Your task to perform on an android device: toggle data saver in the chrome app Image 0: 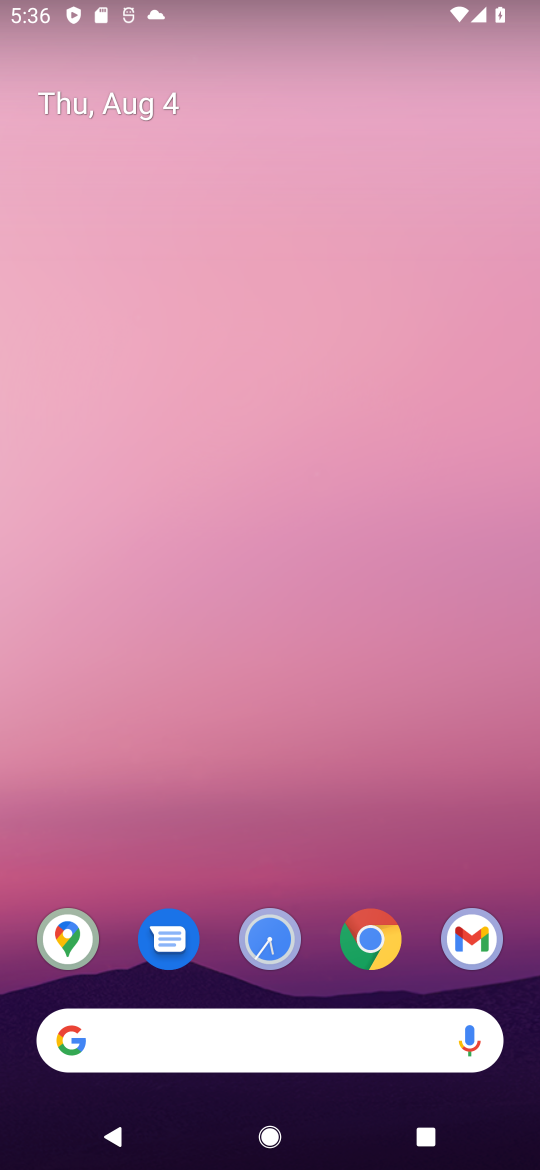
Step 0: click (366, 953)
Your task to perform on an android device: toggle data saver in the chrome app Image 1: 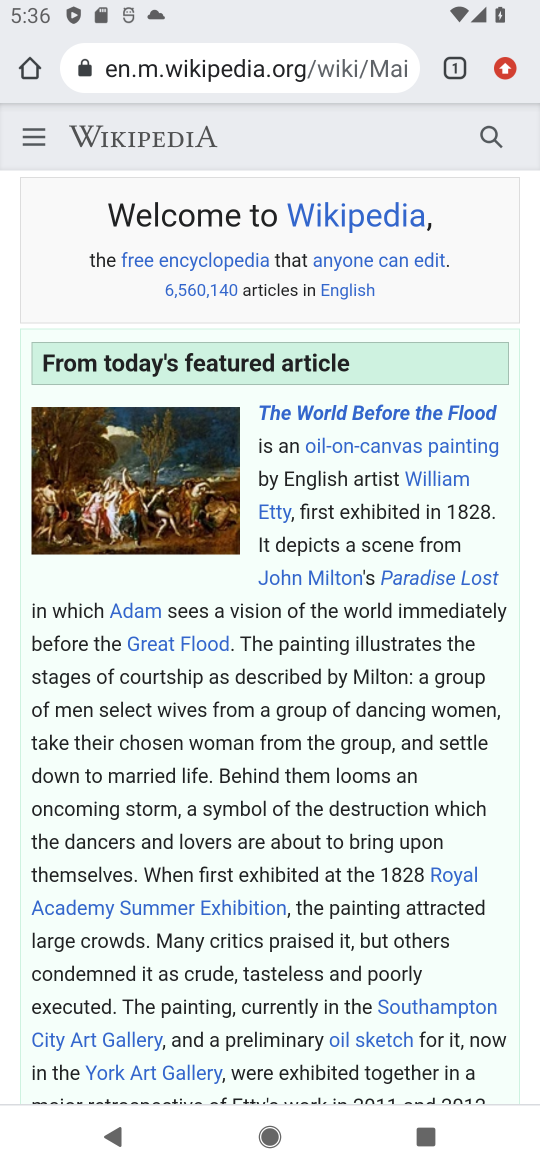
Step 1: click (504, 67)
Your task to perform on an android device: toggle data saver in the chrome app Image 2: 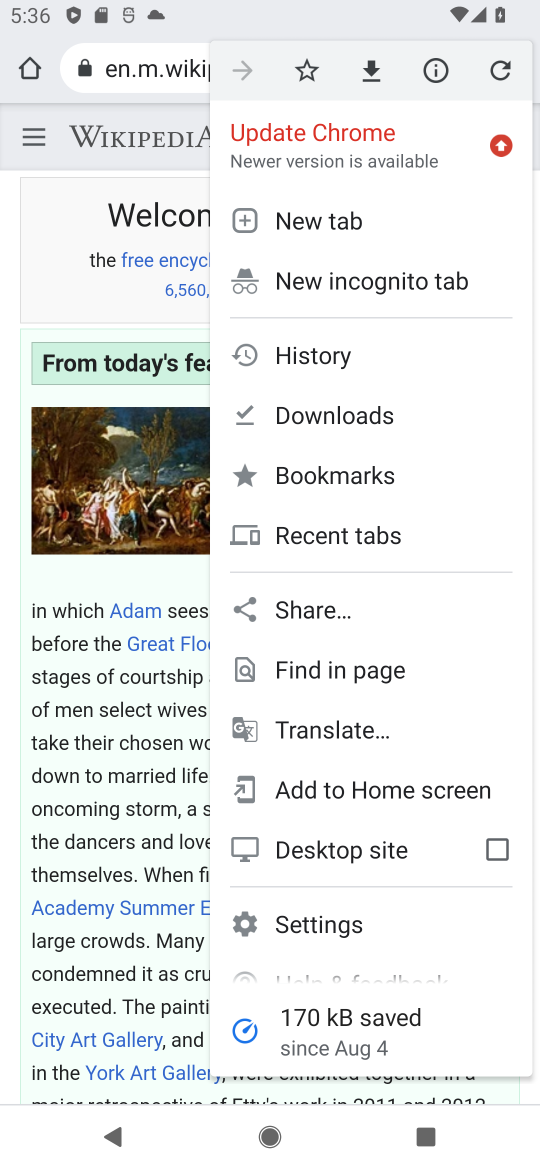
Step 2: click (310, 916)
Your task to perform on an android device: toggle data saver in the chrome app Image 3: 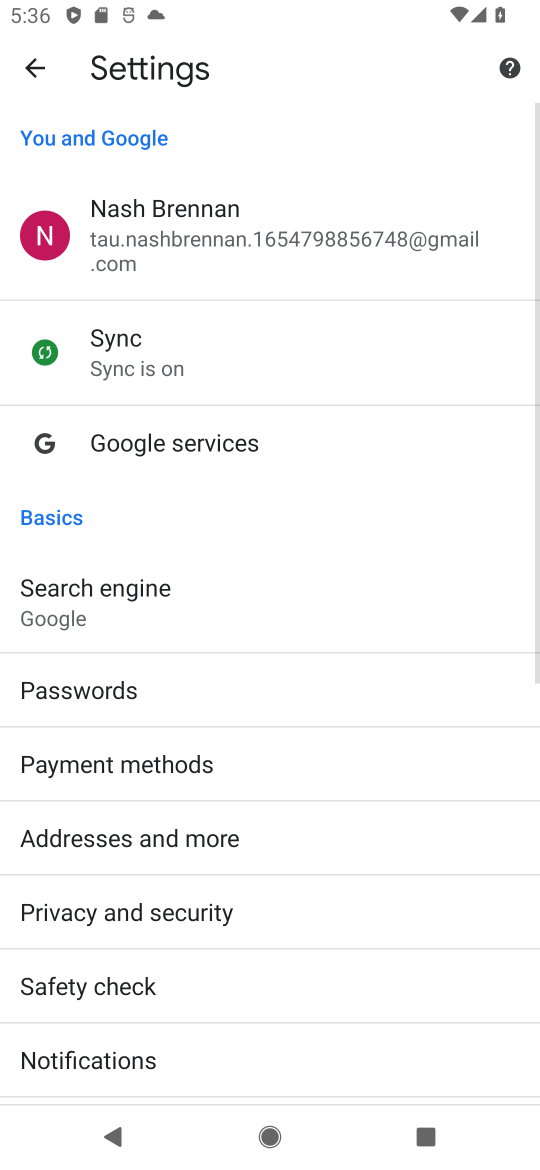
Step 3: drag from (146, 979) to (177, 548)
Your task to perform on an android device: toggle data saver in the chrome app Image 4: 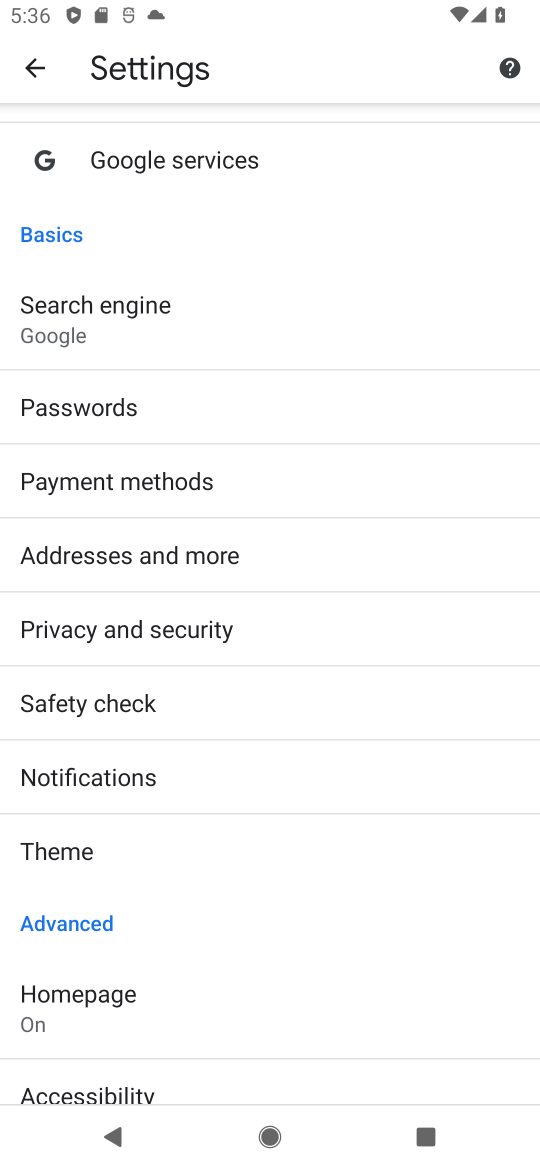
Step 4: drag from (98, 1097) to (103, 566)
Your task to perform on an android device: toggle data saver in the chrome app Image 5: 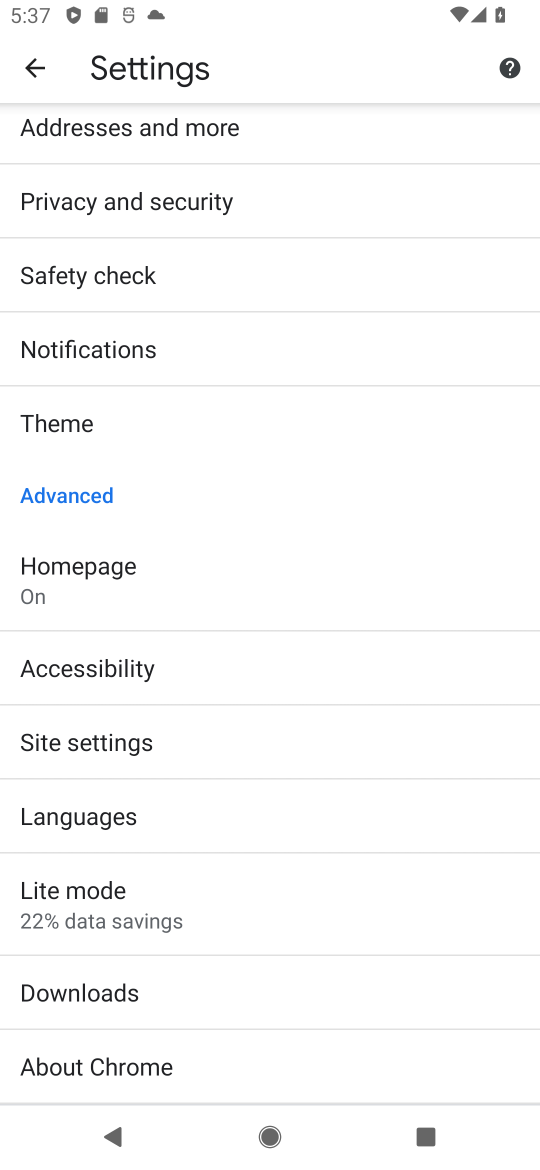
Step 5: click (85, 911)
Your task to perform on an android device: toggle data saver in the chrome app Image 6: 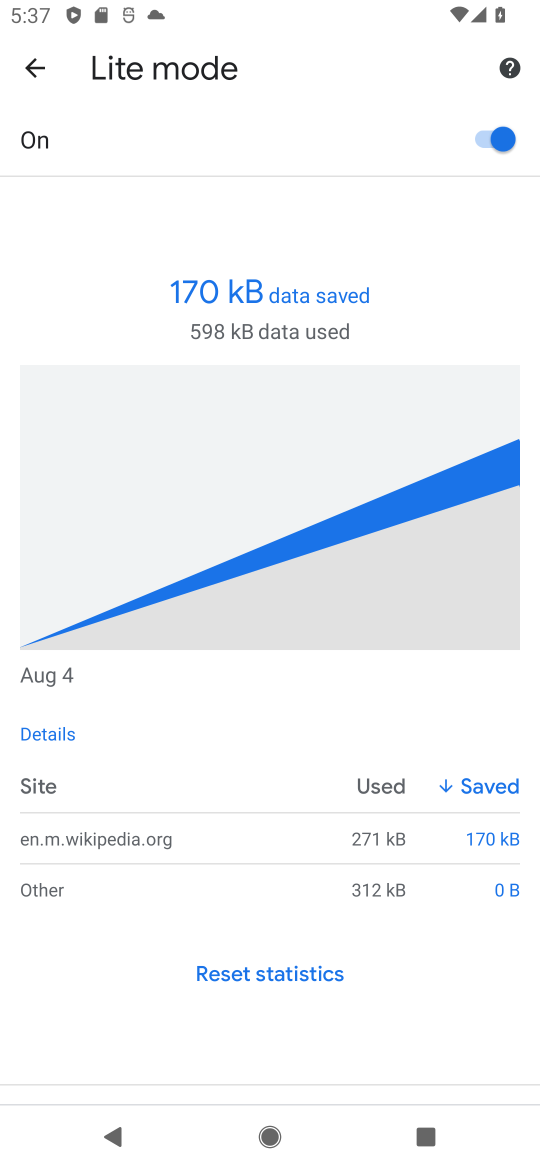
Step 6: click (479, 132)
Your task to perform on an android device: toggle data saver in the chrome app Image 7: 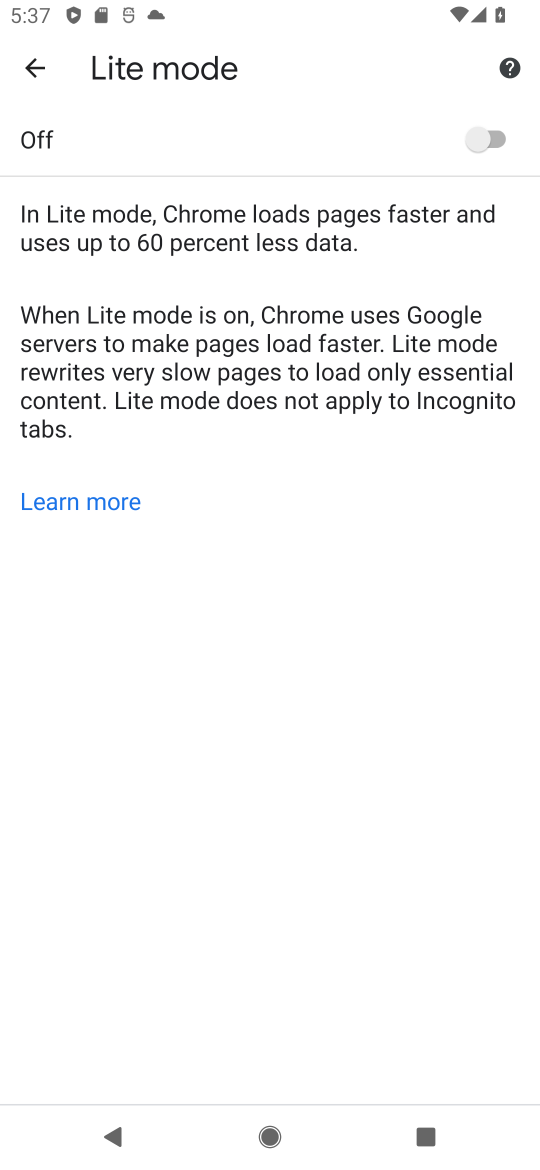
Step 7: task complete